Your task to perform on an android device: check data usage Image 0: 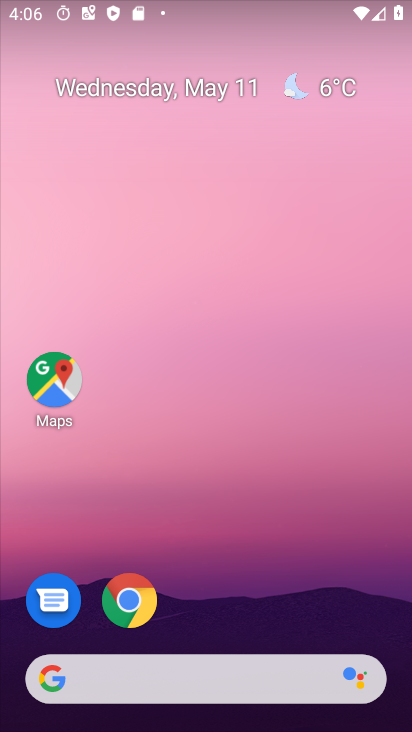
Step 0: drag from (389, 691) to (176, 137)
Your task to perform on an android device: check data usage Image 1: 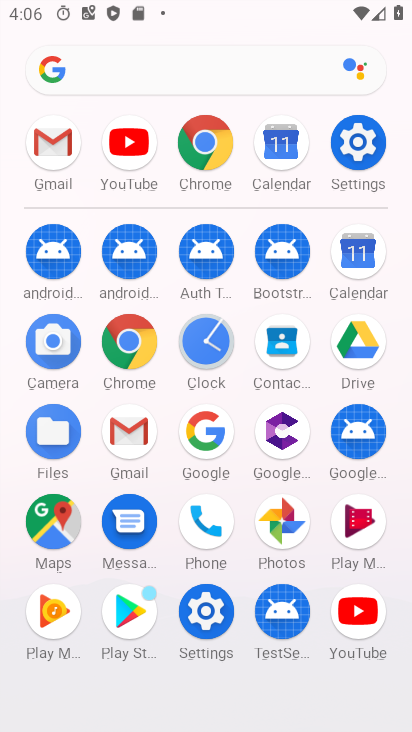
Step 1: click (356, 143)
Your task to perform on an android device: check data usage Image 2: 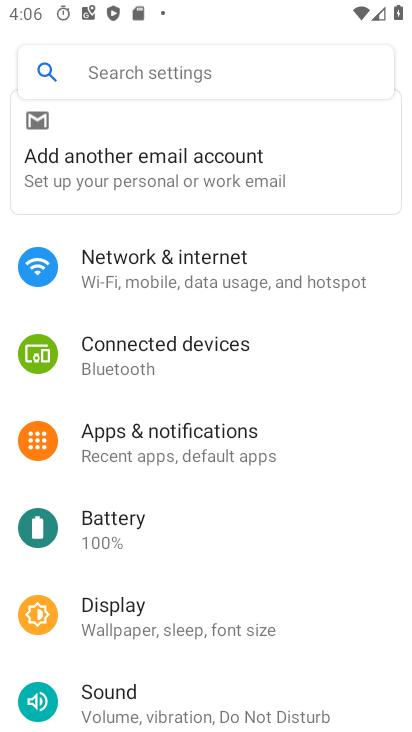
Step 2: click (176, 279)
Your task to perform on an android device: check data usage Image 3: 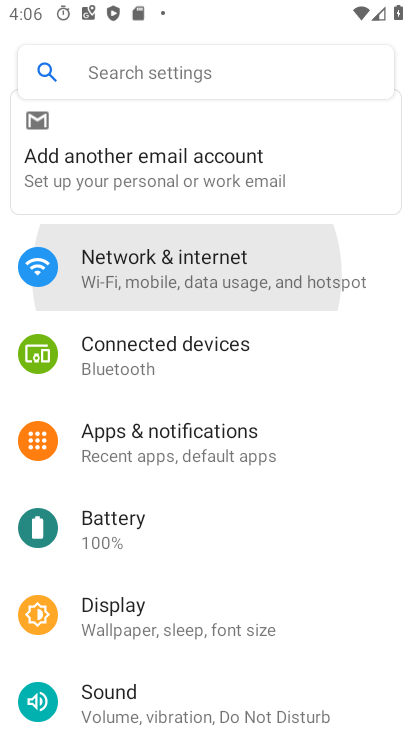
Step 3: click (176, 278)
Your task to perform on an android device: check data usage Image 4: 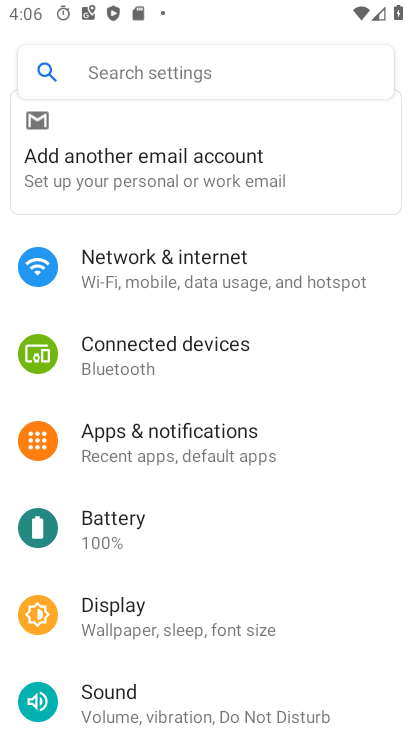
Step 4: click (176, 278)
Your task to perform on an android device: check data usage Image 5: 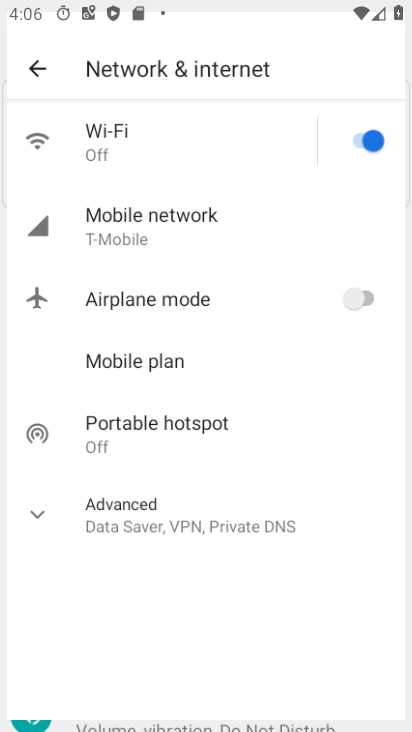
Step 5: click (176, 278)
Your task to perform on an android device: check data usage Image 6: 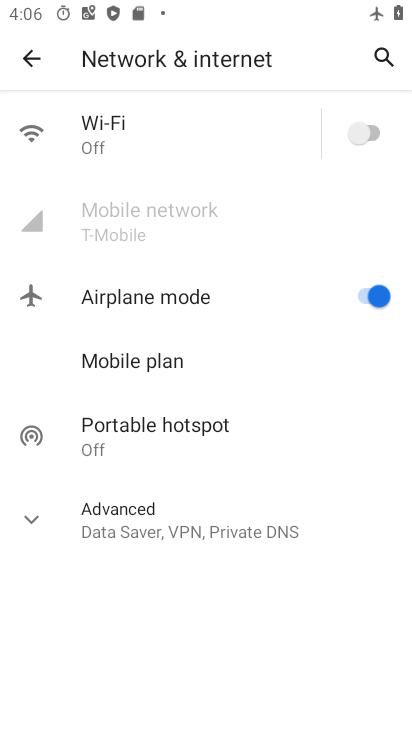
Step 6: click (352, 125)
Your task to perform on an android device: check data usage Image 7: 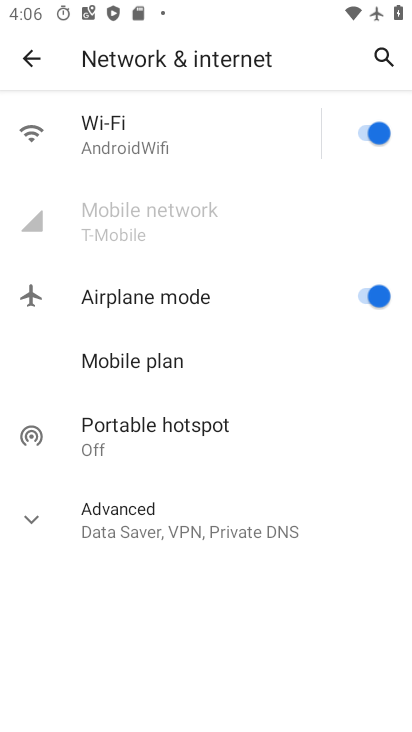
Step 7: task complete